Your task to perform on an android device: turn on javascript in the chrome app Image 0: 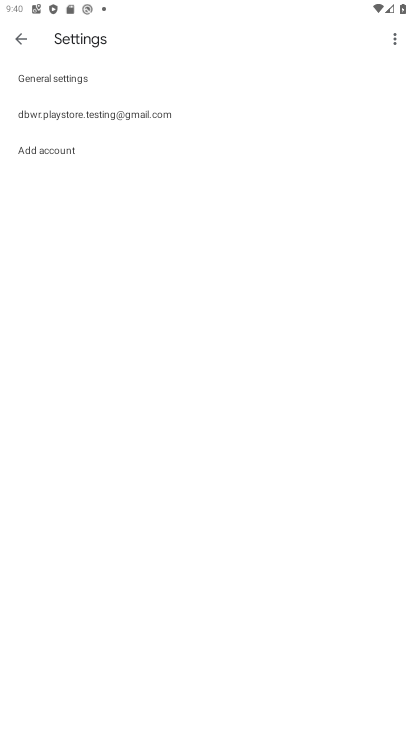
Step 0: press home button
Your task to perform on an android device: turn on javascript in the chrome app Image 1: 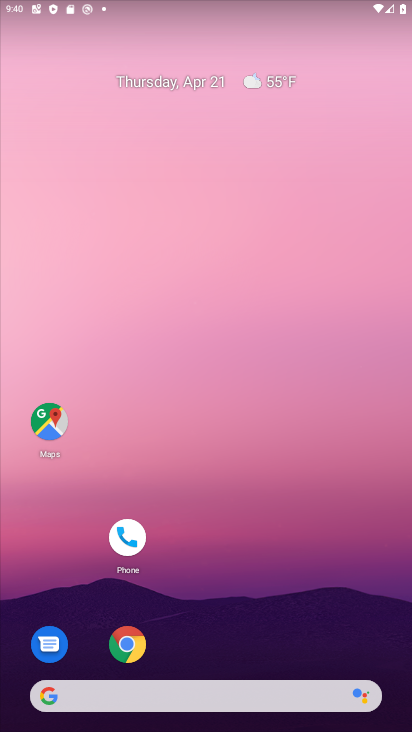
Step 1: click (136, 643)
Your task to perform on an android device: turn on javascript in the chrome app Image 2: 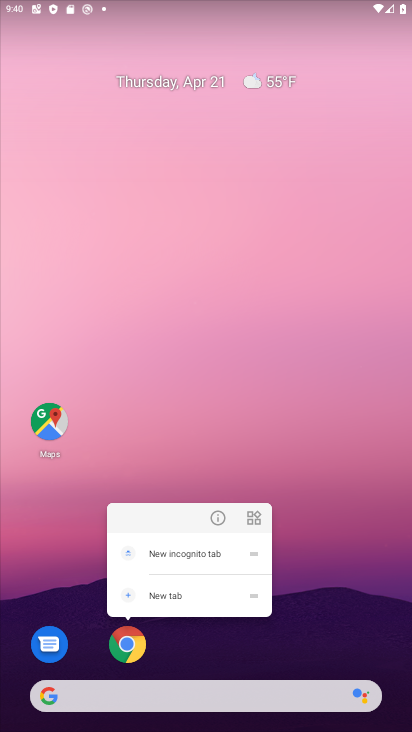
Step 2: click (111, 634)
Your task to perform on an android device: turn on javascript in the chrome app Image 3: 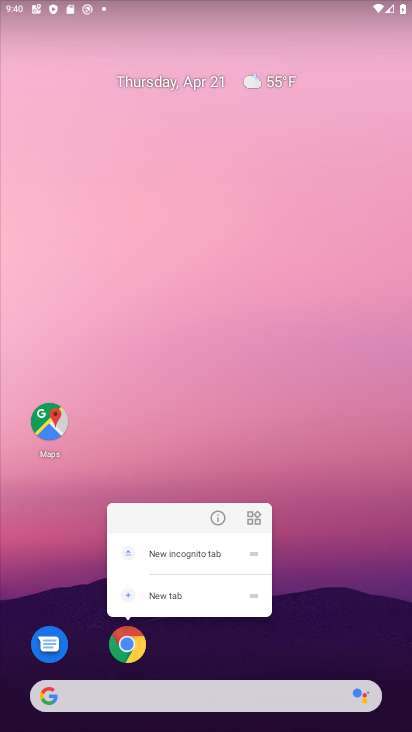
Step 3: click (129, 646)
Your task to perform on an android device: turn on javascript in the chrome app Image 4: 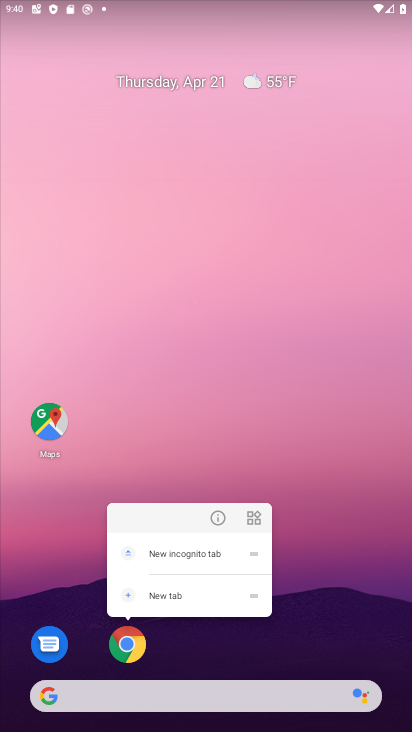
Step 4: click (319, 466)
Your task to perform on an android device: turn on javascript in the chrome app Image 5: 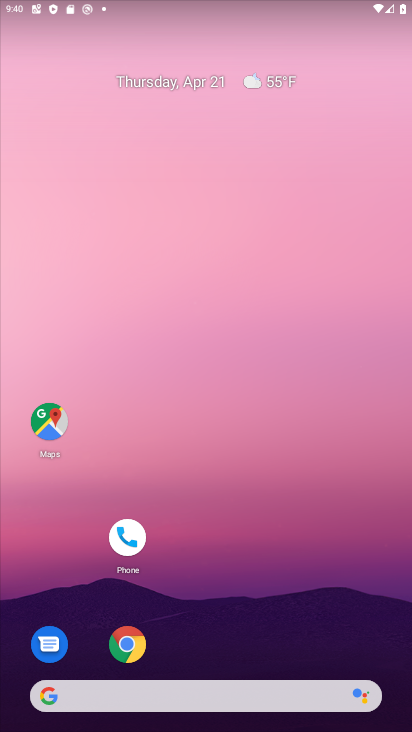
Step 5: drag from (309, 619) to (286, 106)
Your task to perform on an android device: turn on javascript in the chrome app Image 6: 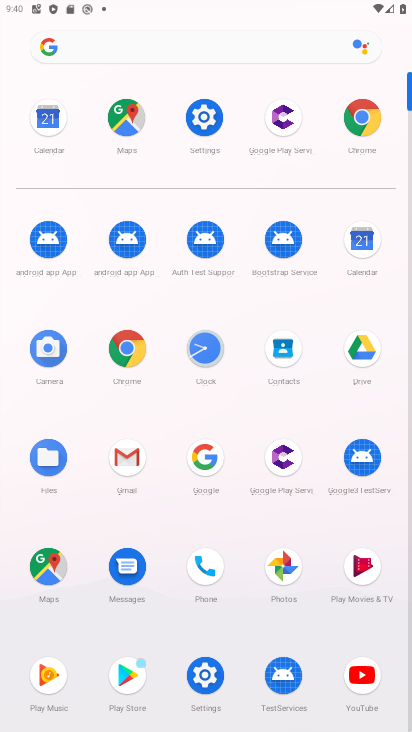
Step 6: click (131, 355)
Your task to perform on an android device: turn on javascript in the chrome app Image 7: 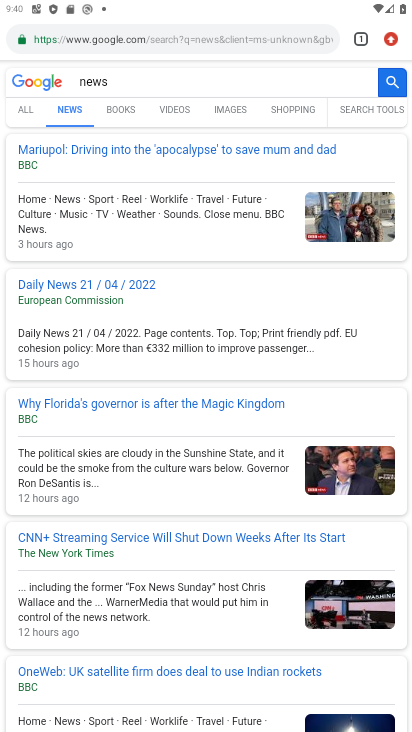
Step 7: drag from (401, 35) to (255, 484)
Your task to perform on an android device: turn on javascript in the chrome app Image 8: 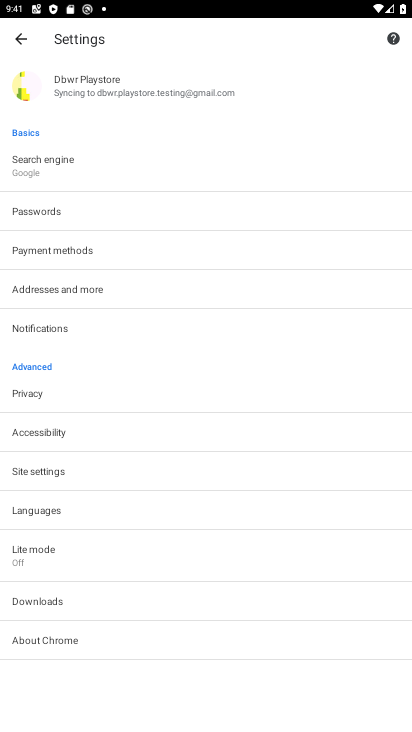
Step 8: click (55, 473)
Your task to perform on an android device: turn on javascript in the chrome app Image 9: 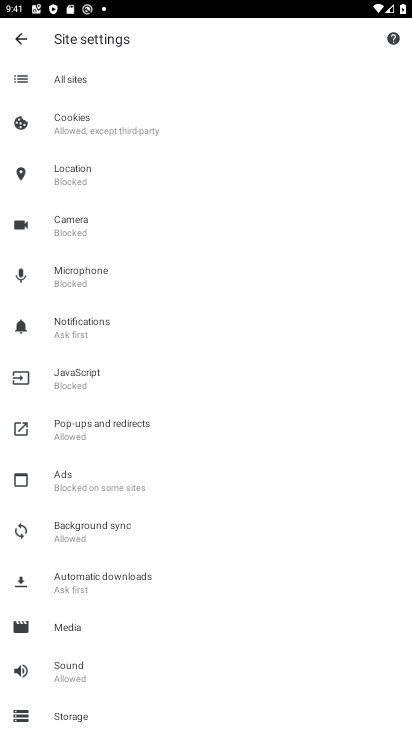
Step 9: click (100, 366)
Your task to perform on an android device: turn on javascript in the chrome app Image 10: 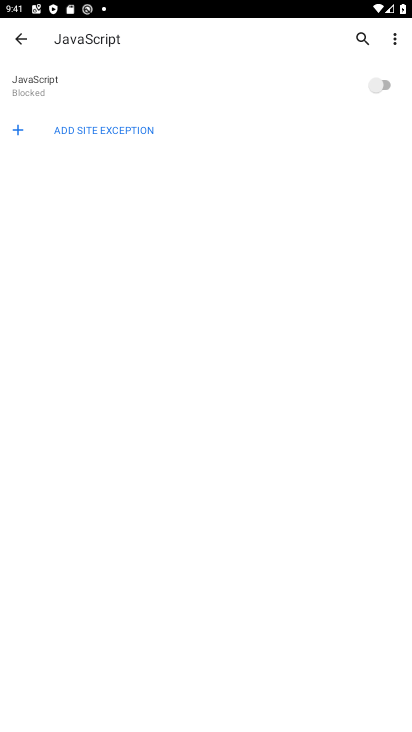
Step 10: click (385, 85)
Your task to perform on an android device: turn on javascript in the chrome app Image 11: 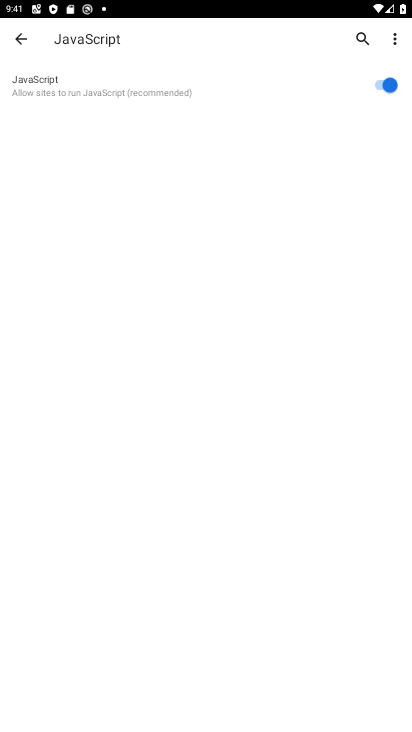
Step 11: task complete